Your task to perform on an android device: toggle notifications settings in the gmail app Image 0: 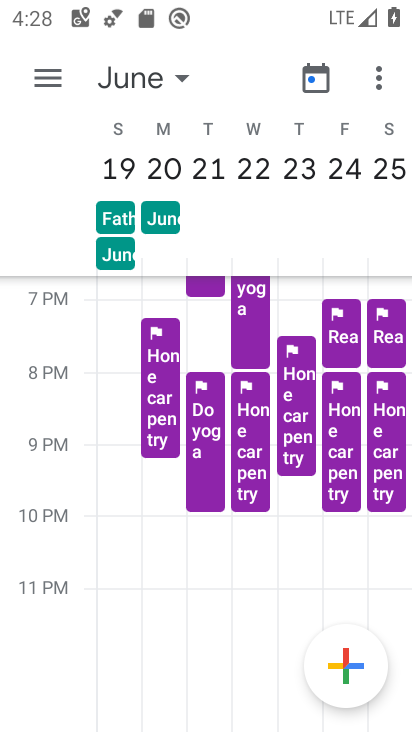
Step 0: press home button
Your task to perform on an android device: toggle notifications settings in the gmail app Image 1: 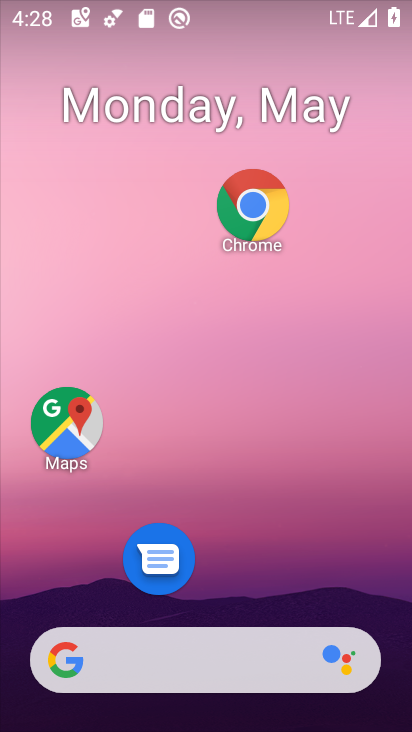
Step 1: drag from (223, 600) to (250, 209)
Your task to perform on an android device: toggle notifications settings in the gmail app Image 2: 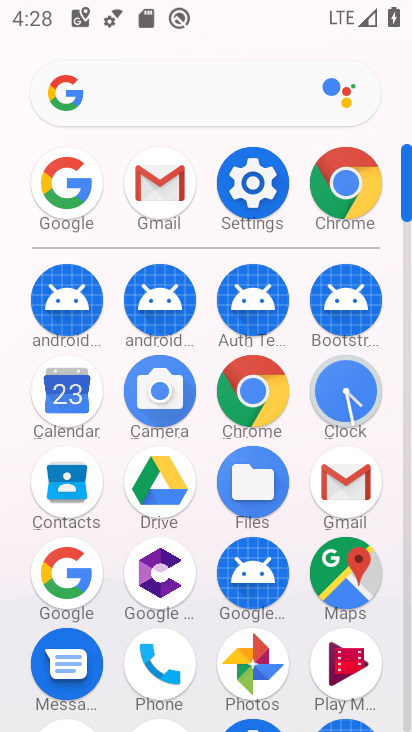
Step 2: click (162, 211)
Your task to perform on an android device: toggle notifications settings in the gmail app Image 3: 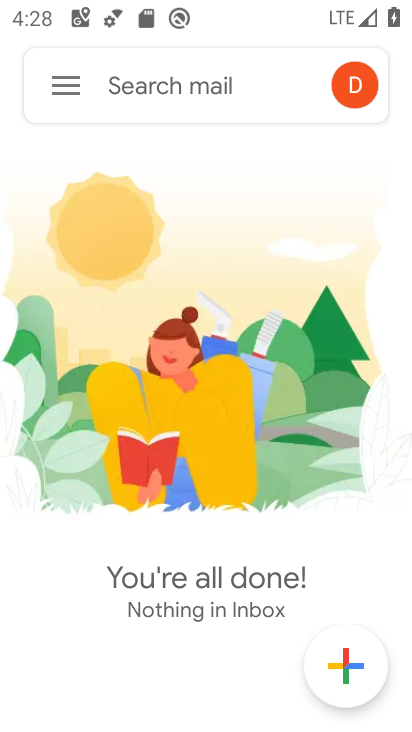
Step 3: click (67, 97)
Your task to perform on an android device: toggle notifications settings in the gmail app Image 4: 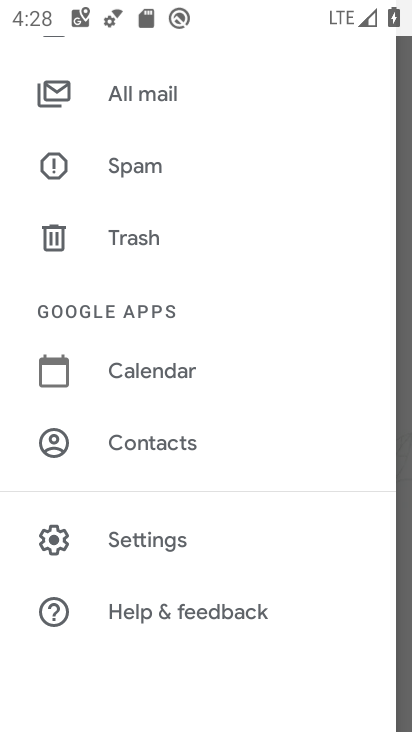
Step 4: click (161, 552)
Your task to perform on an android device: toggle notifications settings in the gmail app Image 5: 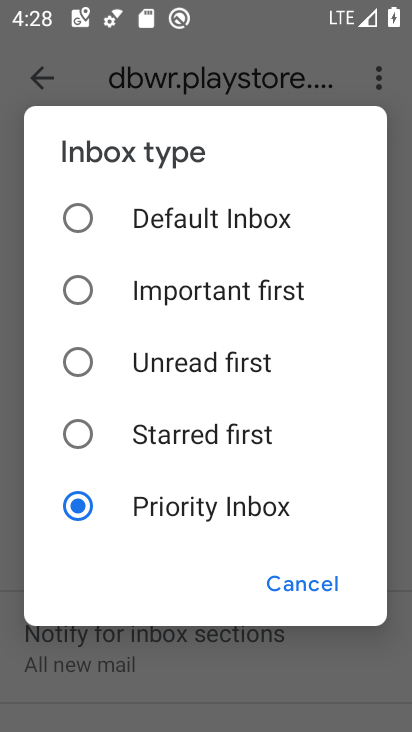
Step 5: click (316, 585)
Your task to perform on an android device: toggle notifications settings in the gmail app Image 6: 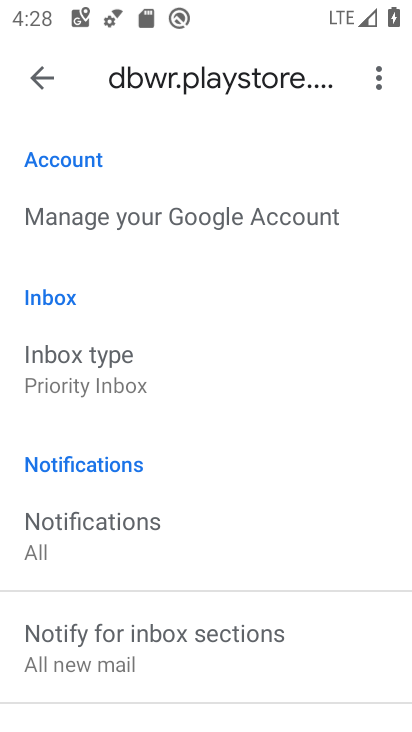
Step 6: click (85, 552)
Your task to perform on an android device: toggle notifications settings in the gmail app Image 7: 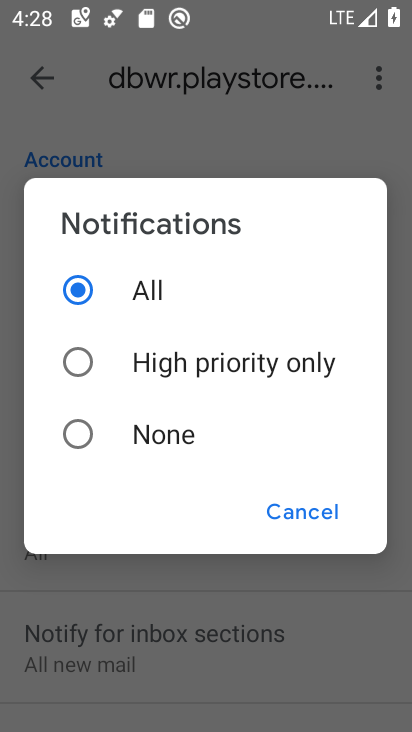
Step 7: click (76, 442)
Your task to perform on an android device: toggle notifications settings in the gmail app Image 8: 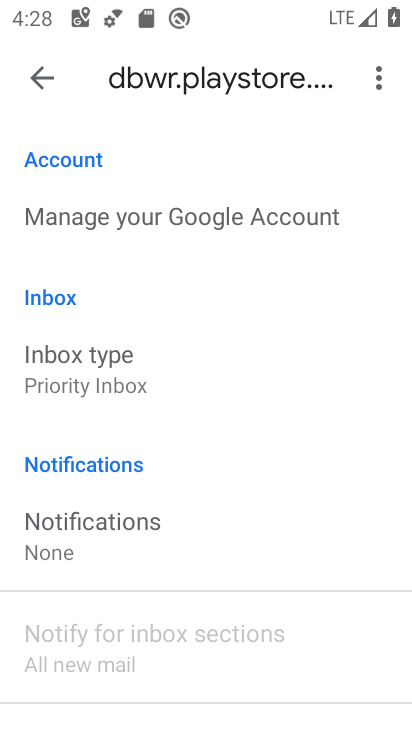
Step 8: task complete